Your task to perform on an android device: turn on priority inbox in the gmail app Image 0: 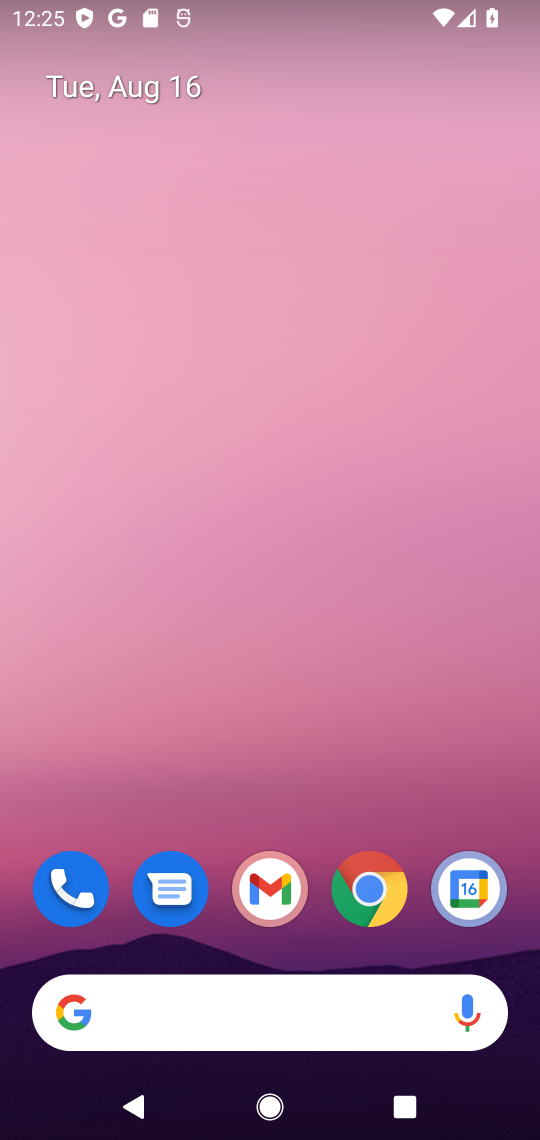
Step 0: drag from (299, 492) to (423, 16)
Your task to perform on an android device: turn on priority inbox in the gmail app Image 1: 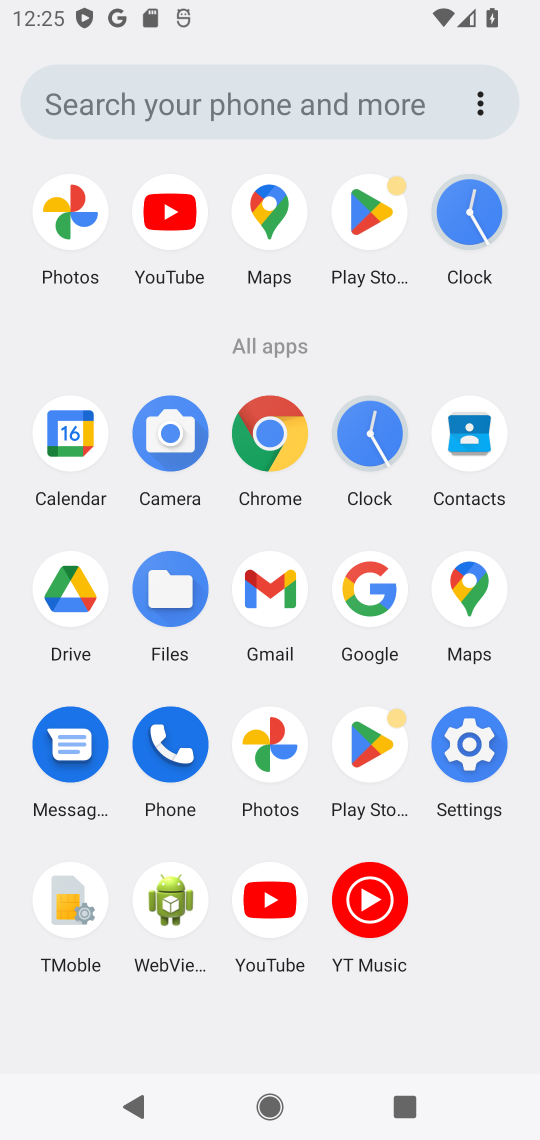
Step 1: click (278, 560)
Your task to perform on an android device: turn on priority inbox in the gmail app Image 2: 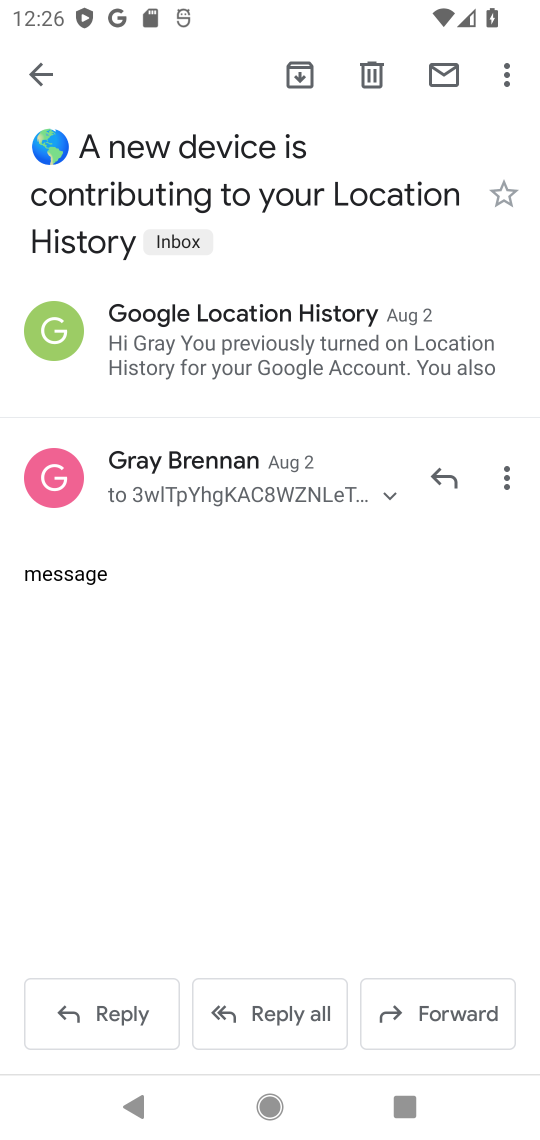
Step 2: click (25, 62)
Your task to perform on an android device: turn on priority inbox in the gmail app Image 3: 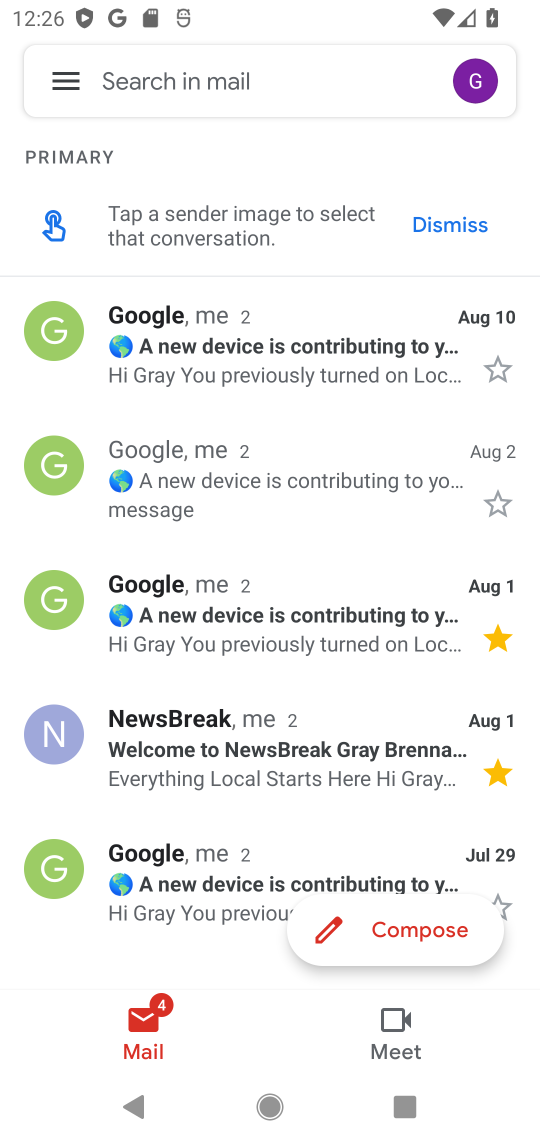
Step 3: click (79, 88)
Your task to perform on an android device: turn on priority inbox in the gmail app Image 4: 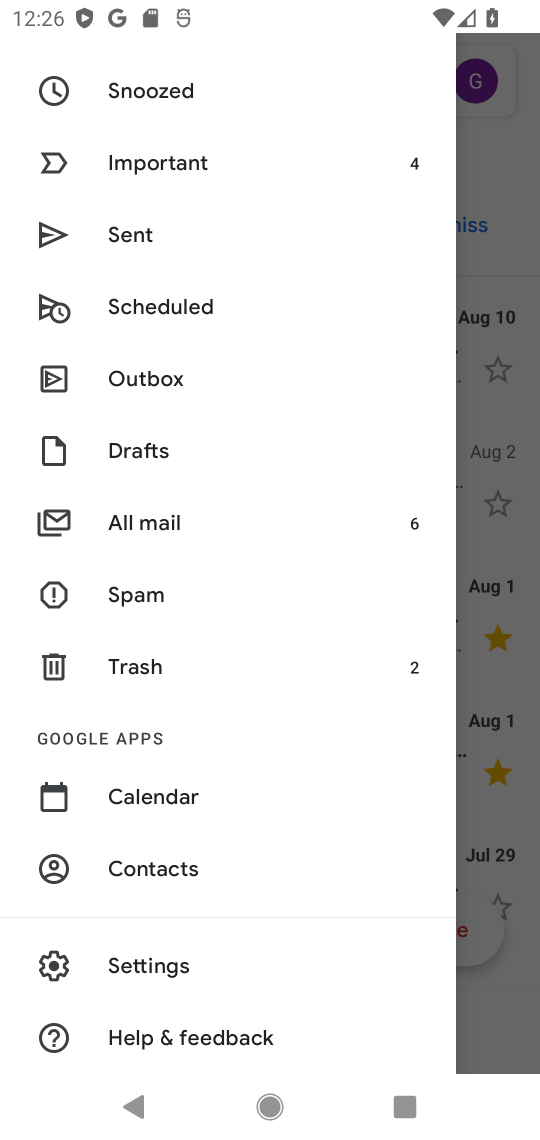
Step 4: click (142, 969)
Your task to perform on an android device: turn on priority inbox in the gmail app Image 5: 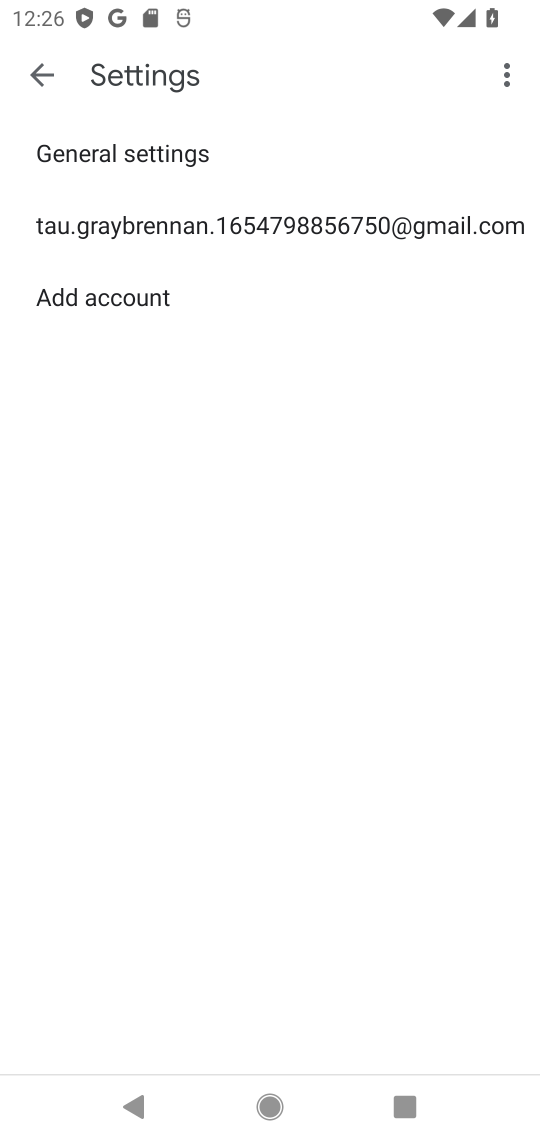
Step 5: click (136, 204)
Your task to perform on an android device: turn on priority inbox in the gmail app Image 6: 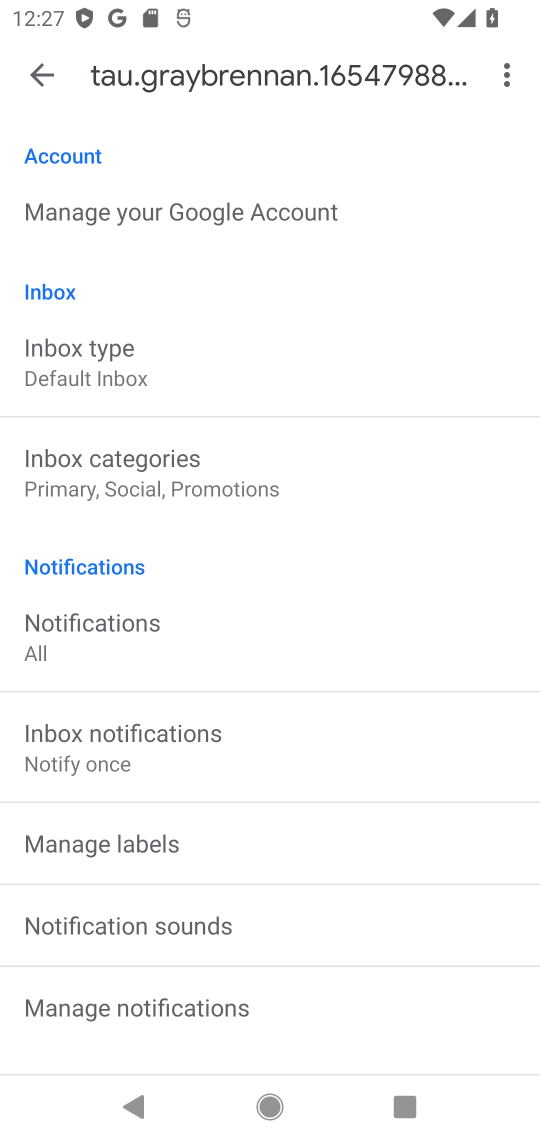
Step 6: click (80, 349)
Your task to perform on an android device: turn on priority inbox in the gmail app Image 7: 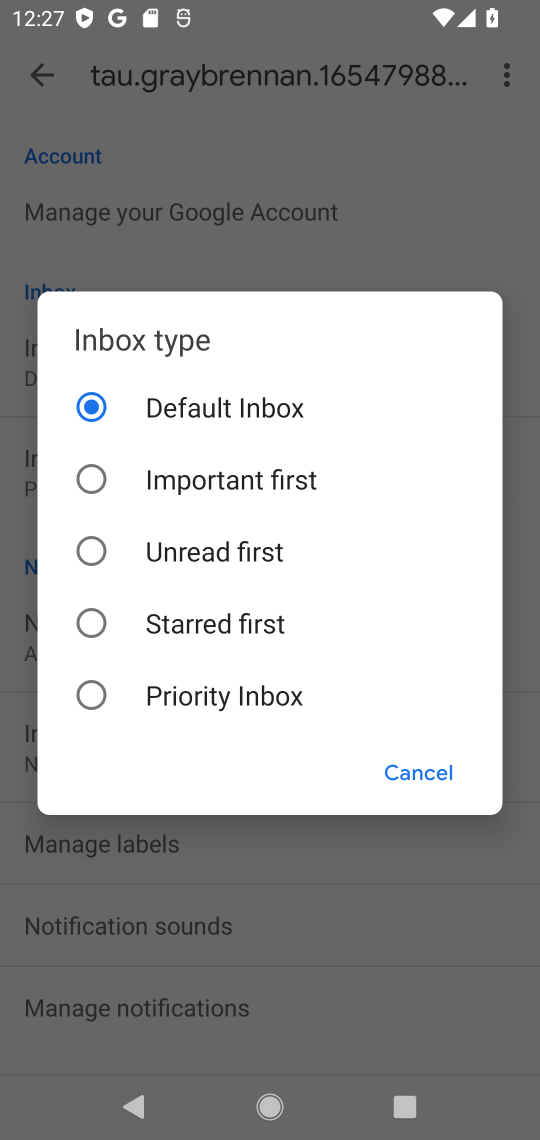
Step 7: click (143, 705)
Your task to perform on an android device: turn on priority inbox in the gmail app Image 8: 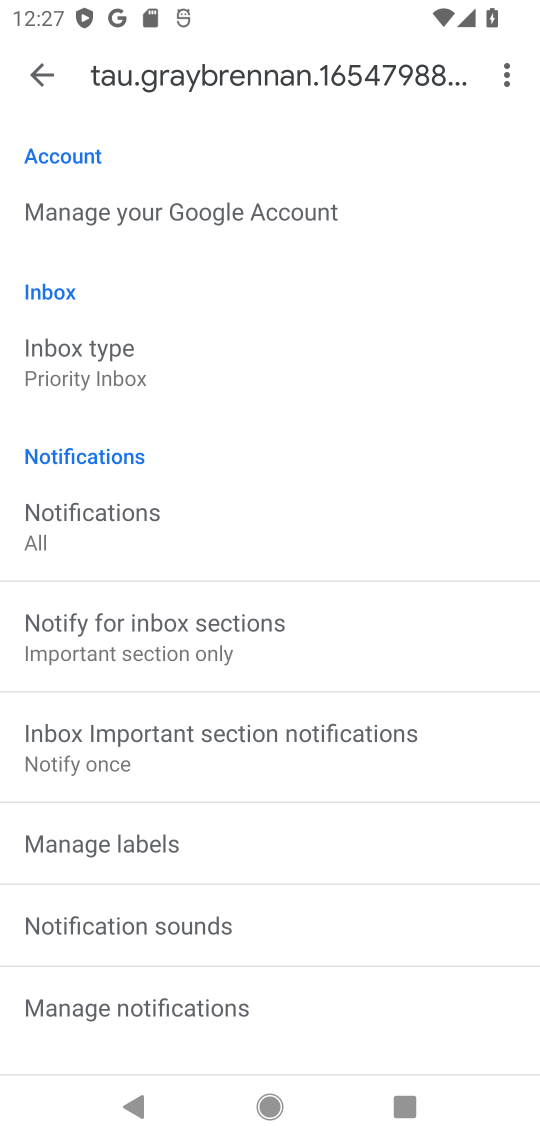
Step 8: task complete